Your task to perform on an android device: delete the emails in spam in the gmail app Image 0: 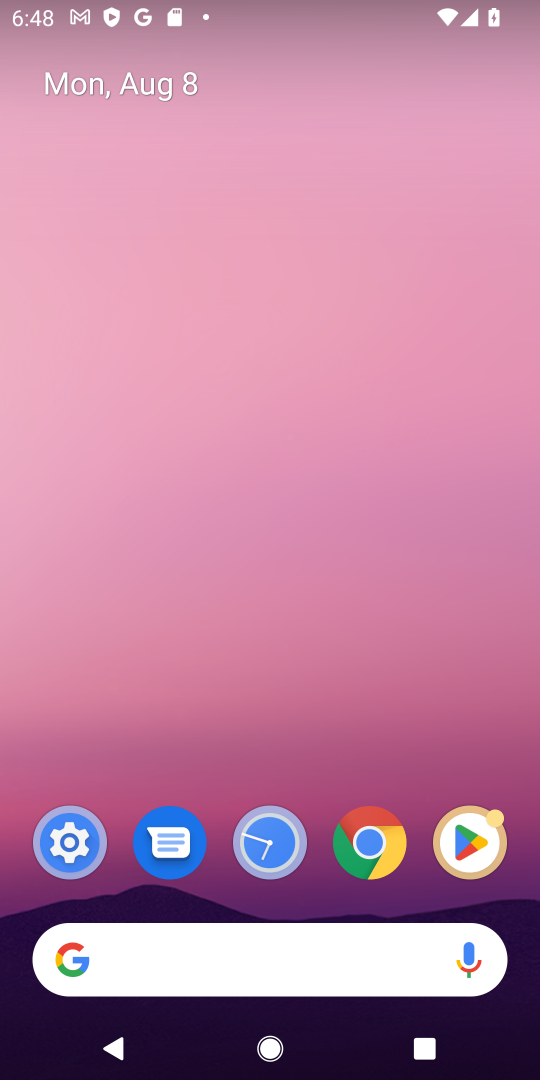
Step 0: drag from (328, 790) to (345, 84)
Your task to perform on an android device: delete the emails in spam in the gmail app Image 1: 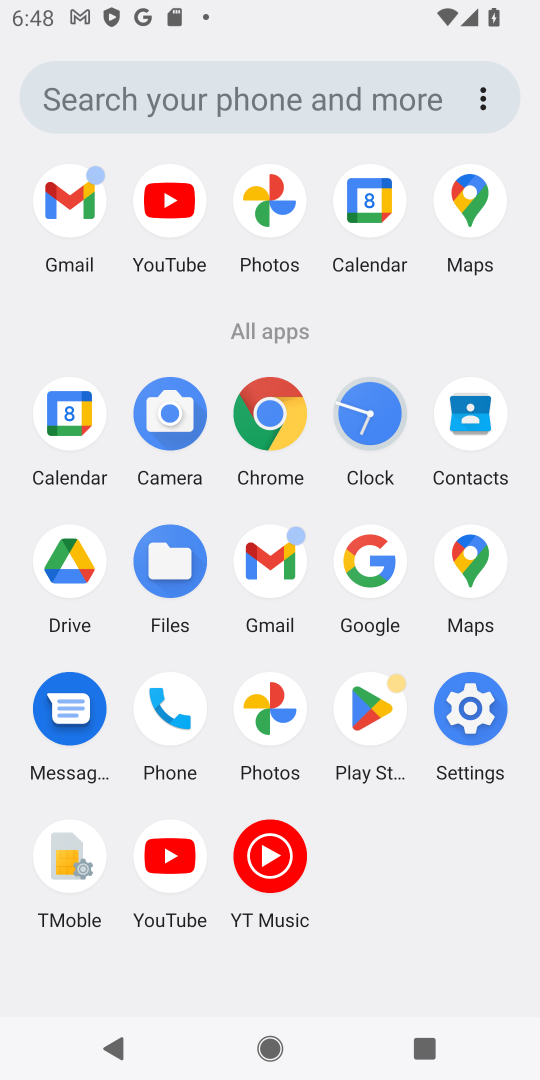
Step 1: click (273, 546)
Your task to perform on an android device: delete the emails in spam in the gmail app Image 2: 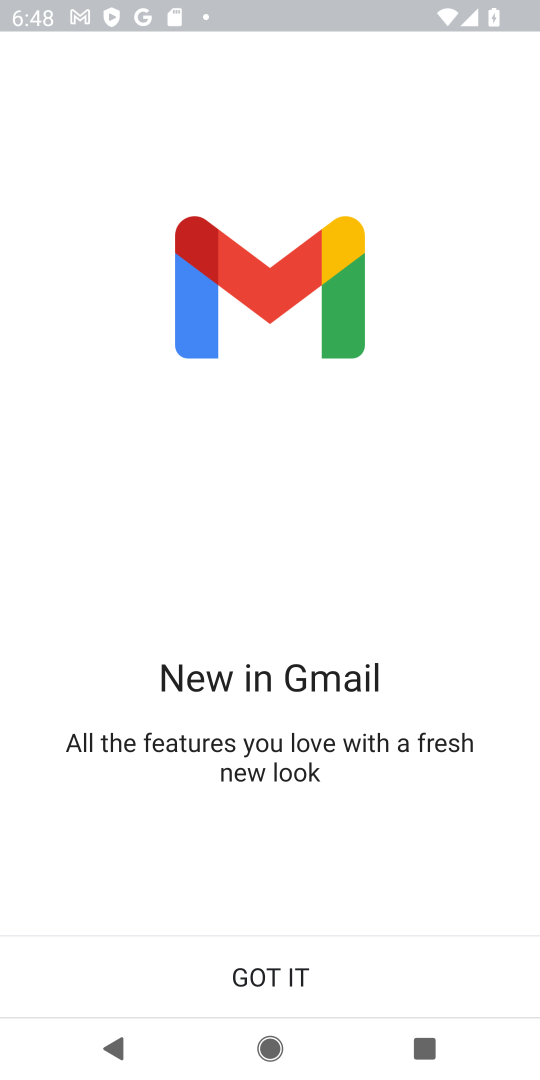
Step 2: click (248, 973)
Your task to perform on an android device: delete the emails in spam in the gmail app Image 3: 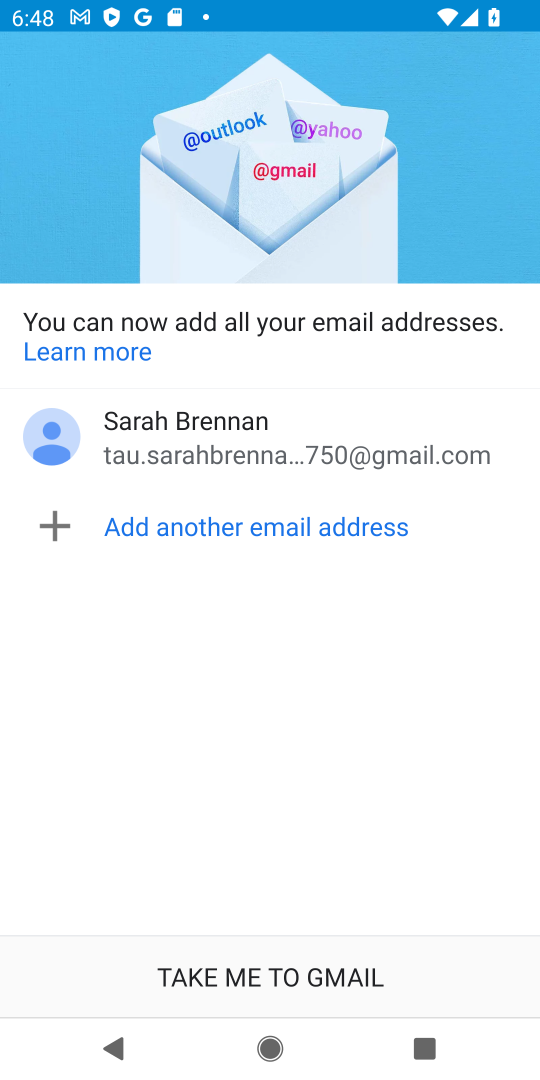
Step 3: click (248, 973)
Your task to perform on an android device: delete the emails in spam in the gmail app Image 4: 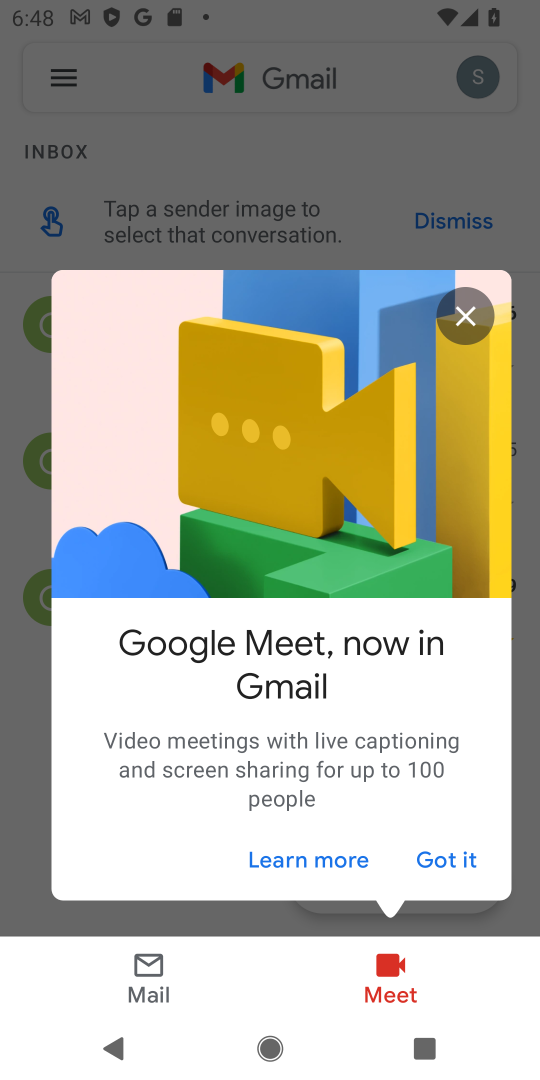
Step 4: click (453, 323)
Your task to perform on an android device: delete the emails in spam in the gmail app Image 5: 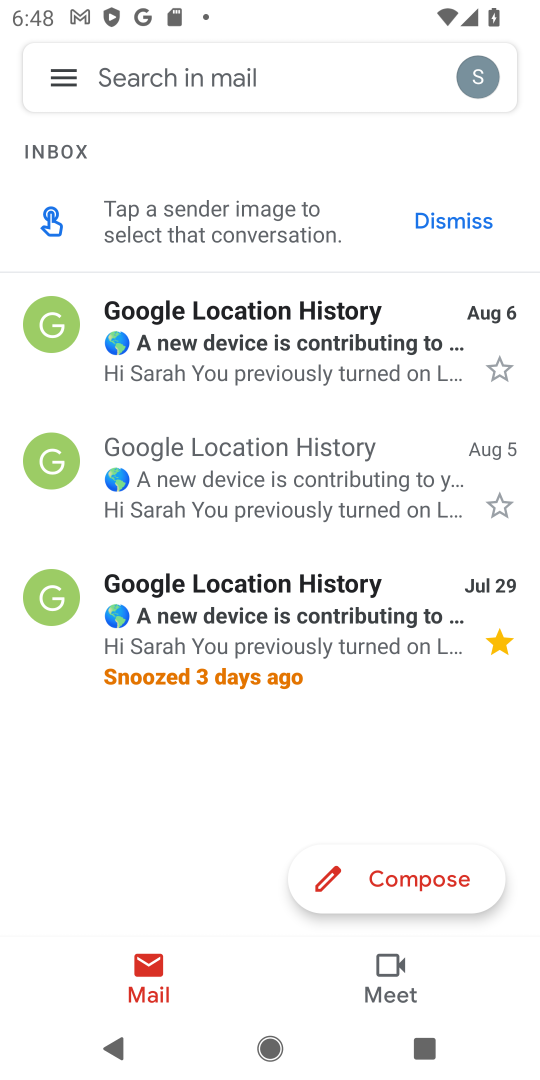
Step 5: click (58, 340)
Your task to perform on an android device: delete the emails in spam in the gmail app Image 6: 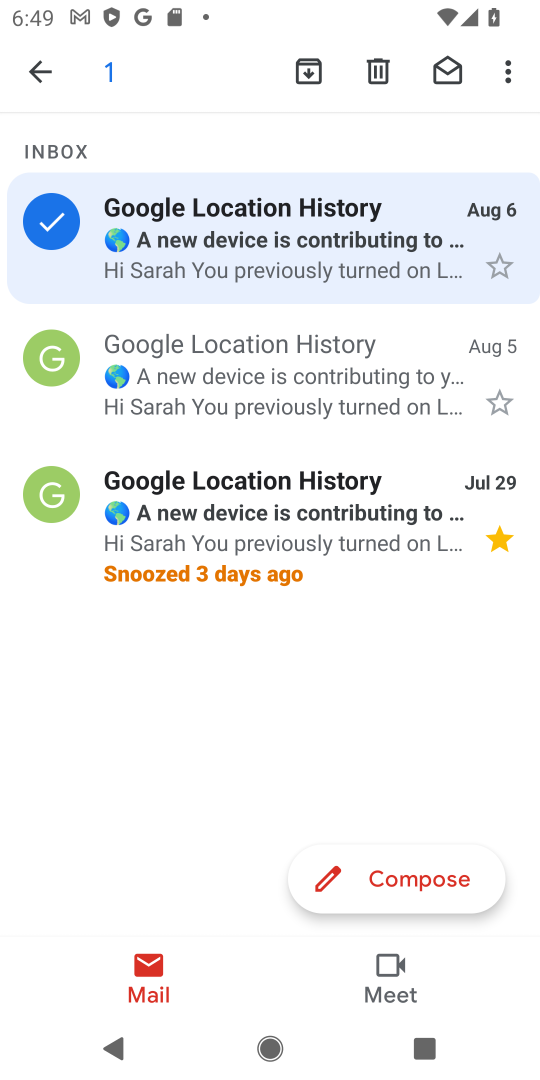
Step 6: click (45, 471)
Your task to perform on an android device: delete the emails in spam in the gmail app Image 7: 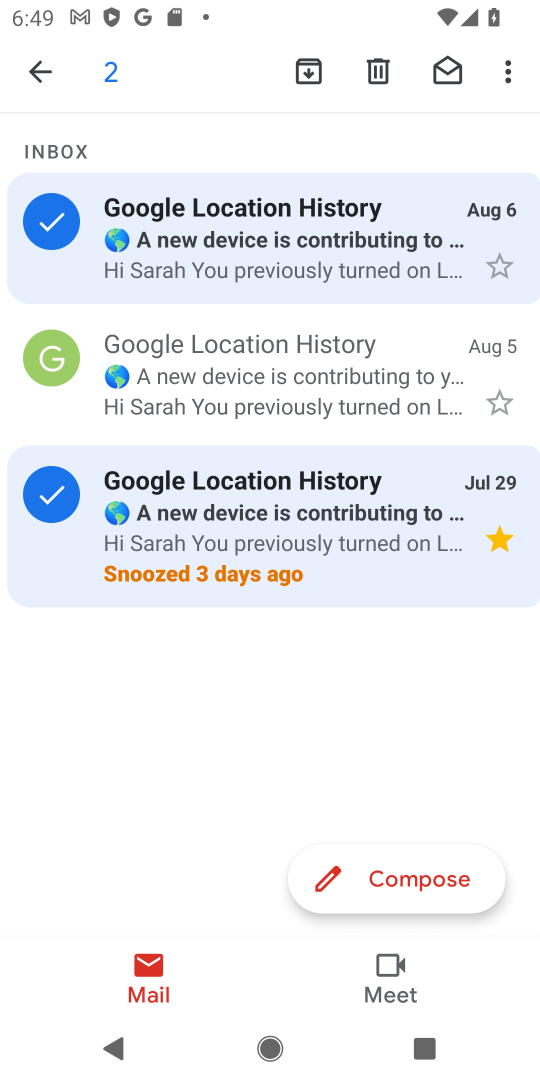
Step 7: click (51, 214)
Your task to perform on an android device: delete the emails in spam in the gmail app Image 8: 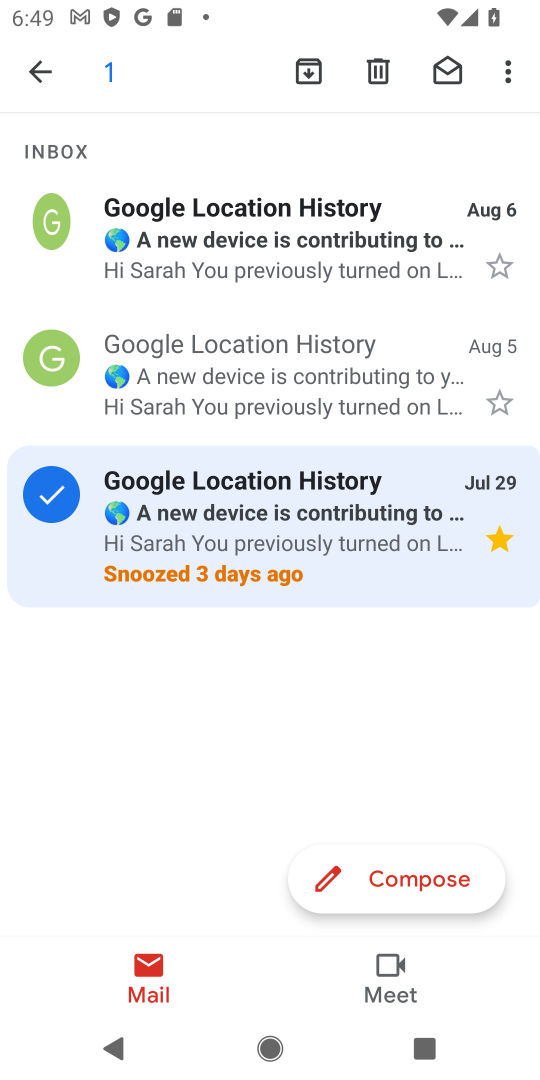
Step 8: click (58, 490)
Your task to perform on an android device: delete the emails in spam in the gmail app Image 9: 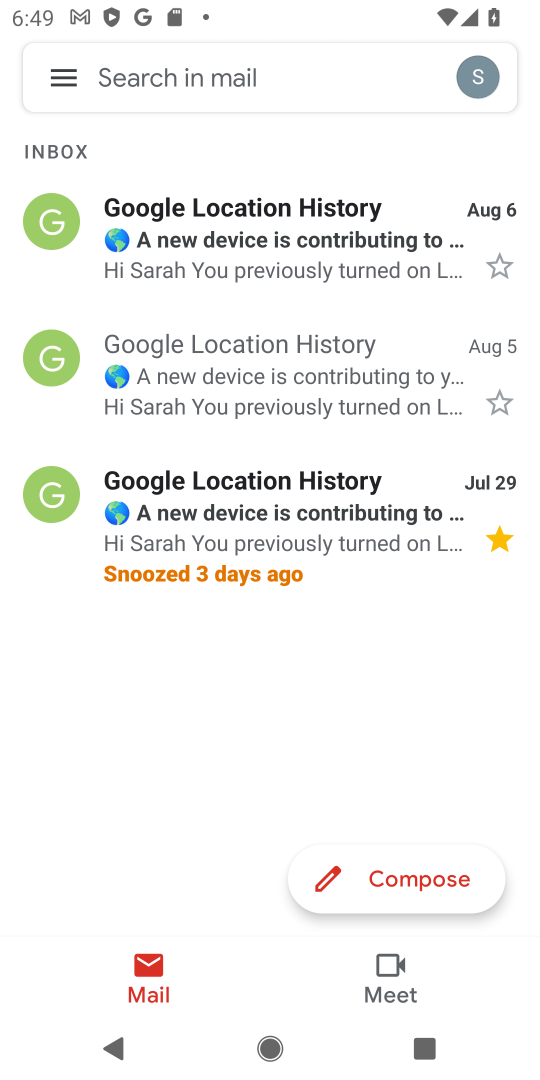
Step 9: click (53, 71)
Your task to perform on an android device: delete the emails in spam in the gmail app Image 10: 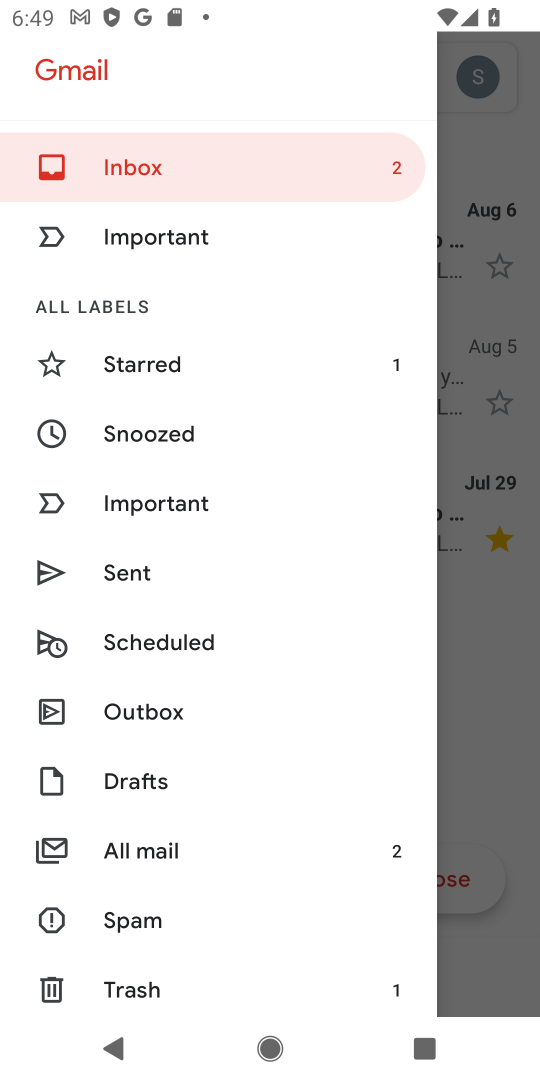
Step 10: click (159, 911)
Your task to perform on an android device: delete the emails in spam in the gmail app Image 11: 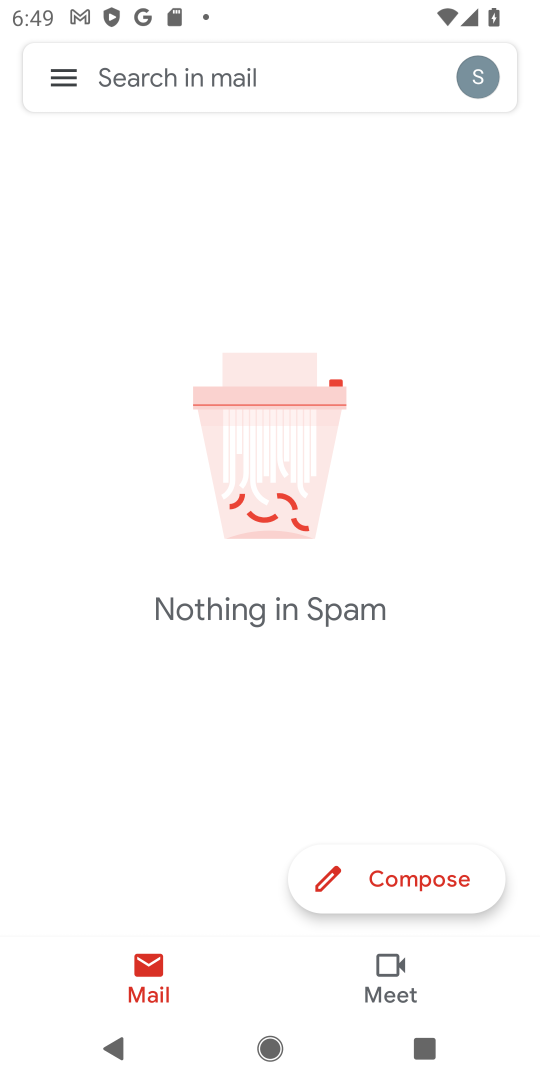
Step 11: task complete